Your task to perform on an android device: How big is the moon? Image 0: 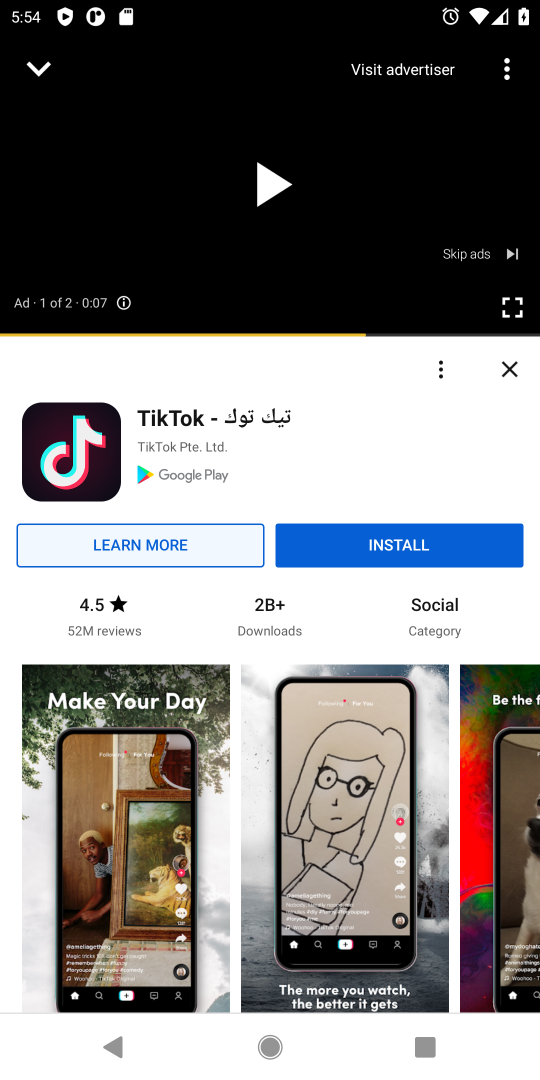
Step 0: press home button
Your task to perform on an android device: How big is the moon? Image 1: 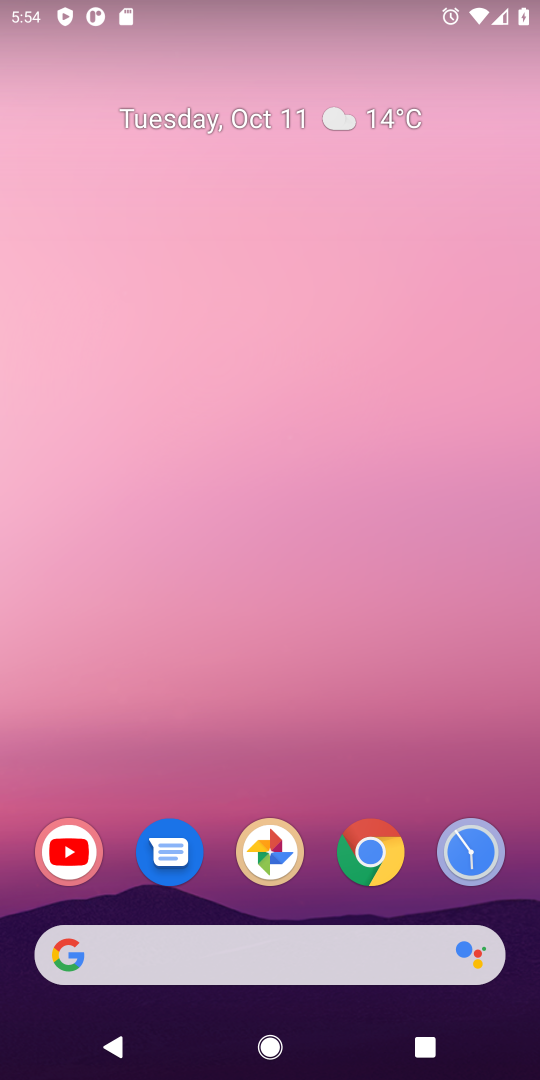
Step 1: click (388, 877)
Your task to perform on an android device: How big is the moon? Image 2: 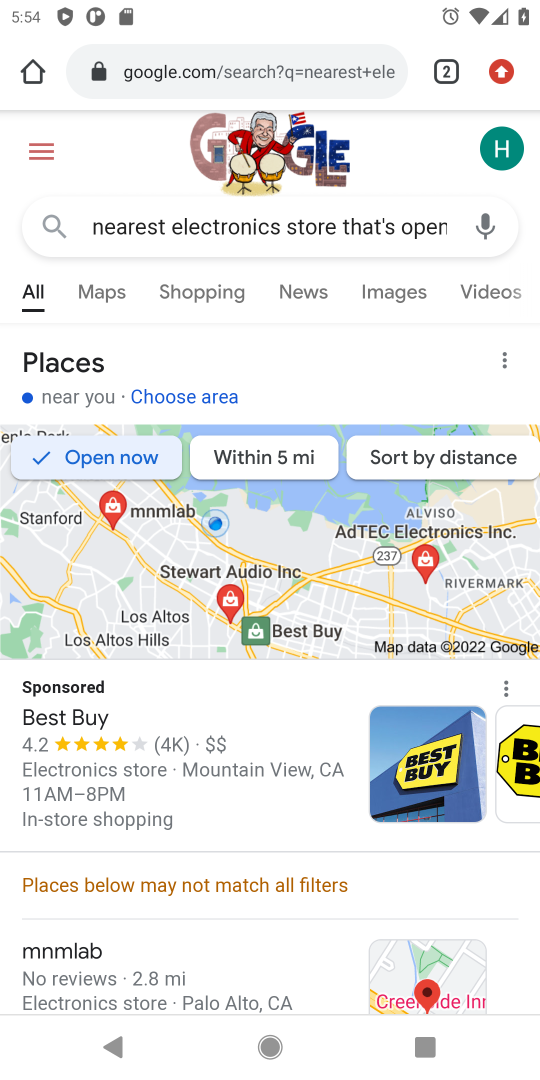
Step 2: click (228, 70)
Your task to perform on an android device: How big is the moon? Image 3: 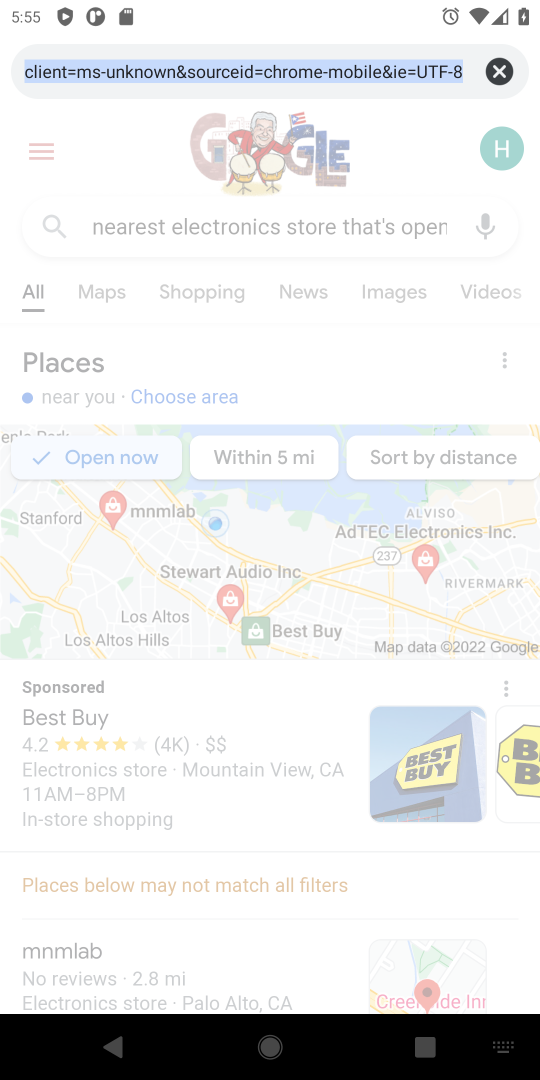
Step 3: type "How big is the moon?"
Your task to perform on an android device: How big is the moon? Image 4: 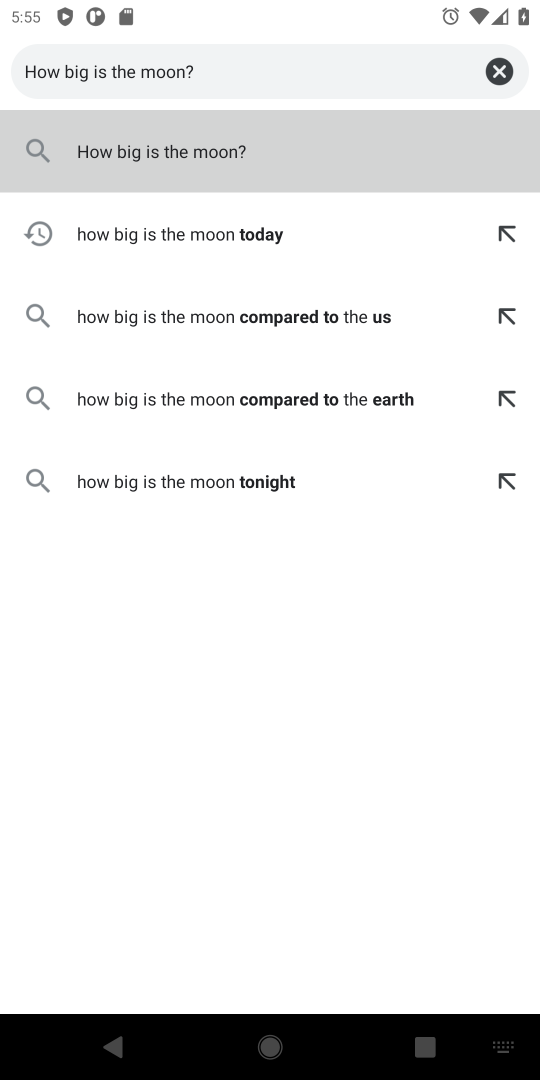
Step 4: click (243, 158)
Your task to perform on an android device: How big is the moon? Image 5: 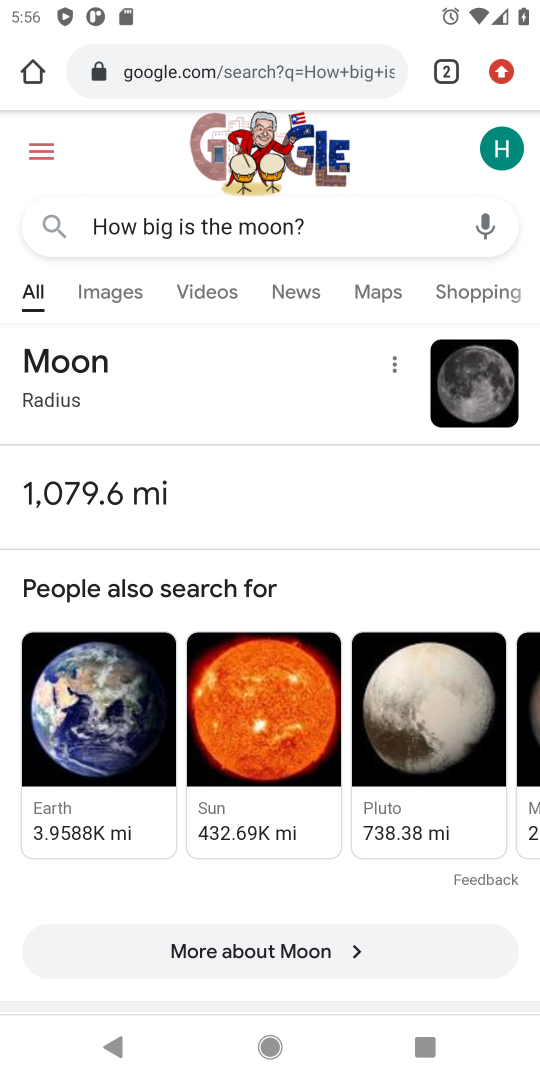
Step 5: task complete